Your task to perform on an android device: Open Youtube and go to "Your channel" Image 0: 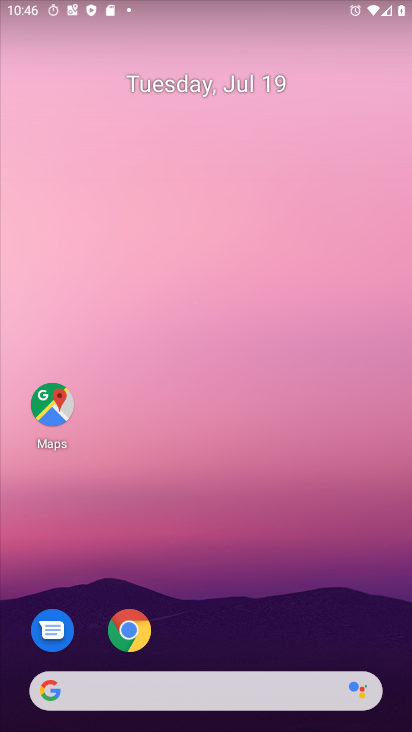
Step 0: press home button
Your task to perform on an android device: Open Youtube and go to "Your channel" Image 1: 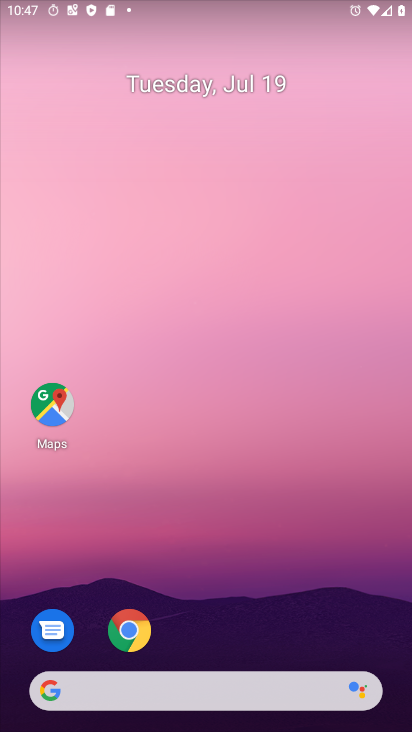
Step 1: drag from (236, 531) to (177, 38)
Your task to perform on an android device: Open Youtube and go to "Your channel" Image 2: 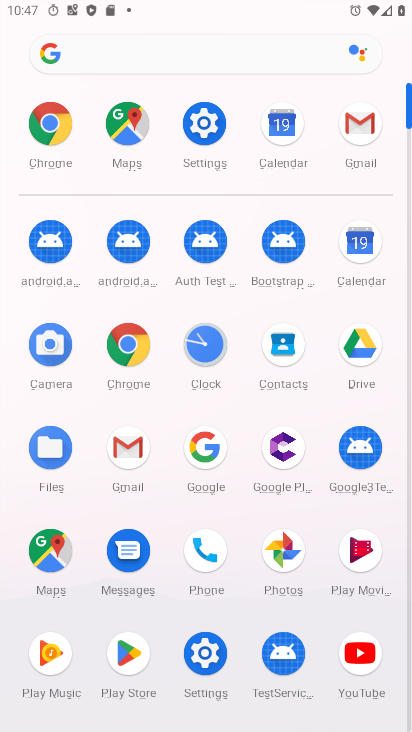
Step 2: click (366, 664)
Your task to perform on an android device: Open Youtube and go to "Your channel" Image 3: 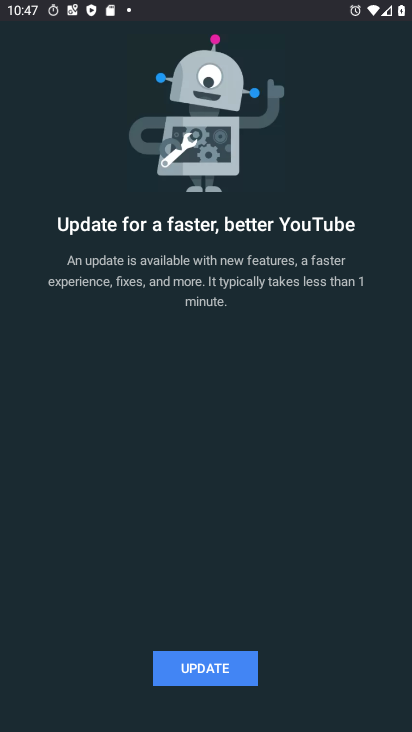
Step 3: click (238, 675)
Your task to perform on an android device: Open Youtube and go to "Your channel" Image 4: 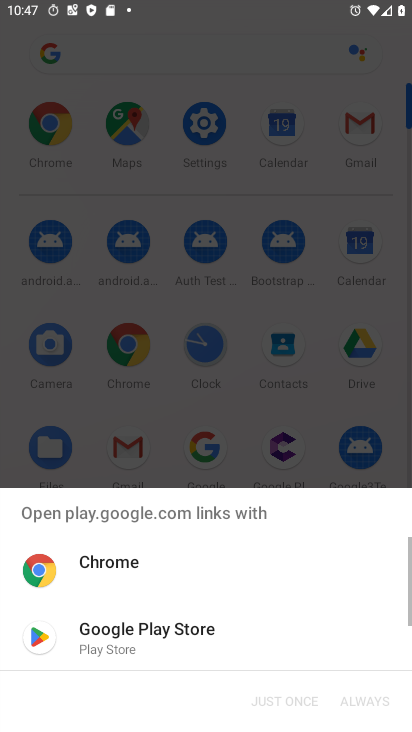
Step 4: click (177, 635)
Your task to perform on an android device: Open Youtube and go to "Your channel" Image 5: 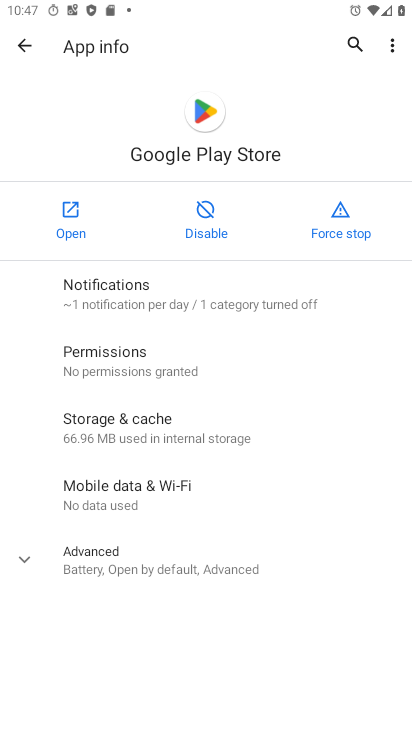
Step 5: press home button
Your task to perform on an android device: Open Youtube and go to "Your channel" Image 6: 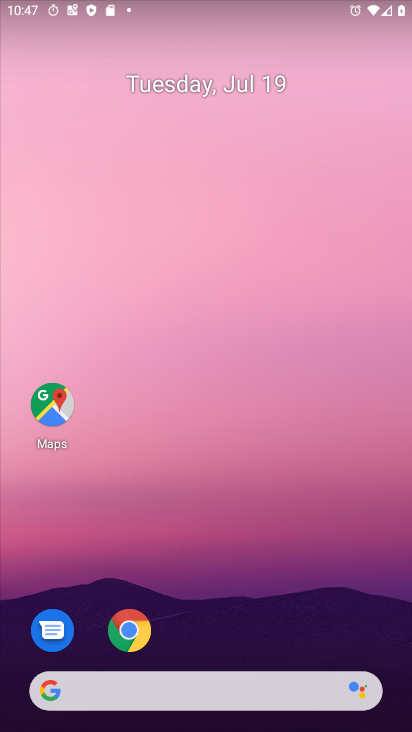
Step 6: drag from (300, 605) to (265, 104)
Your task to perform on an android device: Open Youtube and go to "Your channel" Image 7: 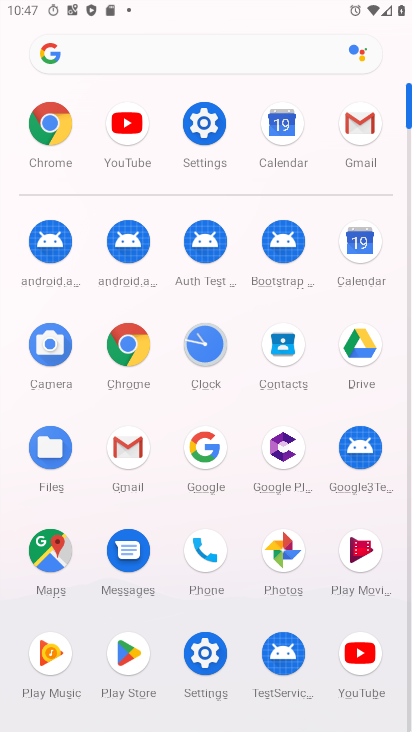
Step 7: click (365, 650)
Your task to perform on an android device: Open Youtube and go to "Your channel" Image 8: 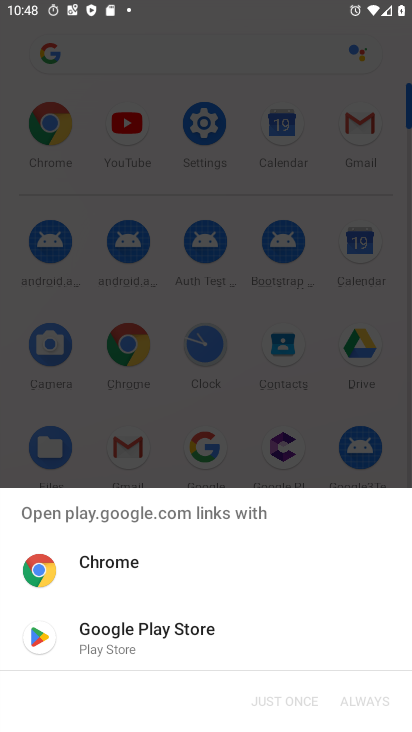
Step 8: click (159, 633)
Your task to perform on an android device: Open Youtube and go to "Your channel" Image 9: 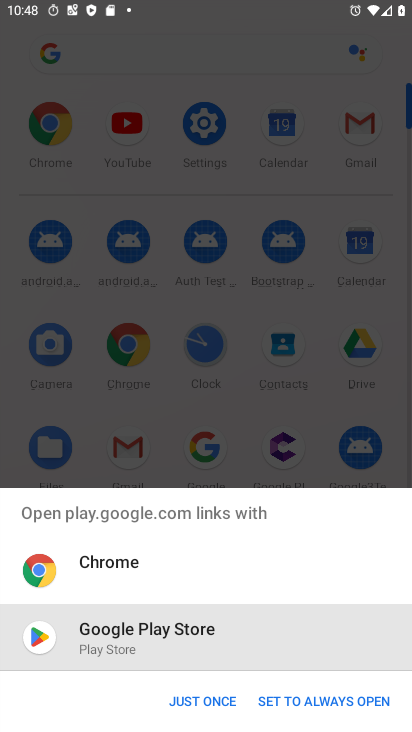
Step 9: click (199, 707)
Your task to perform on an android device: Open Youtube and go to "Your channel" Image 10: 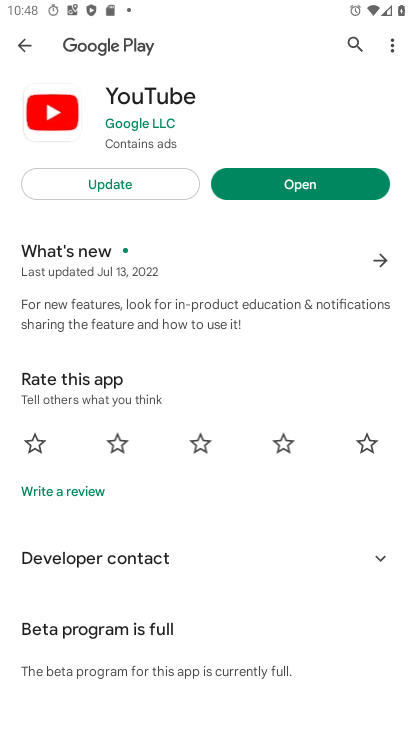
Step 10: click (141, 186)
Your task to perform on an android device: Open Youtube and go to "Your channel" Image 11: 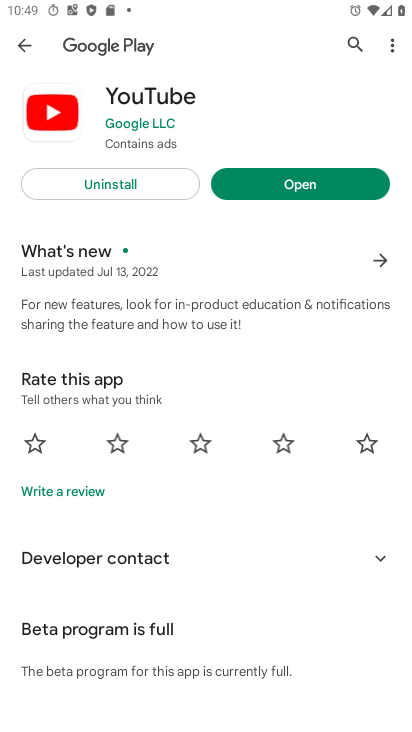
Step 11: click (303, 184)
Your task to perform on an android device: Open Youtube and go to "Your channel" Image 12: 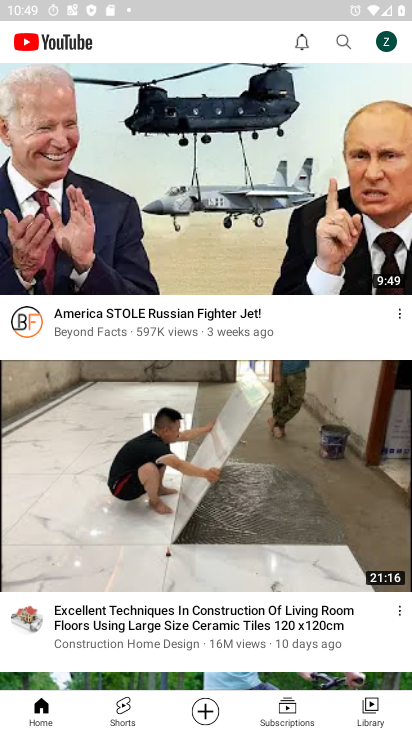
Step 12: click (31, 711)
Your task to perform on an android device: Open Youtube and go to "Your channel" Image 13: 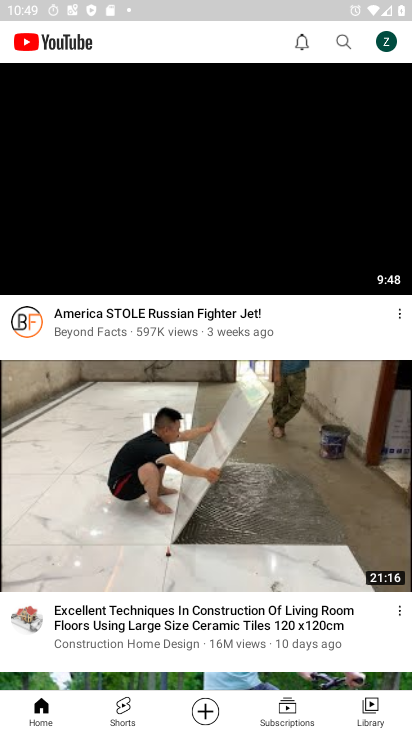
Step 13: click (360, 706)
Your task to perform on an android device: Open Youtube and go to "Your channel" Image 14: 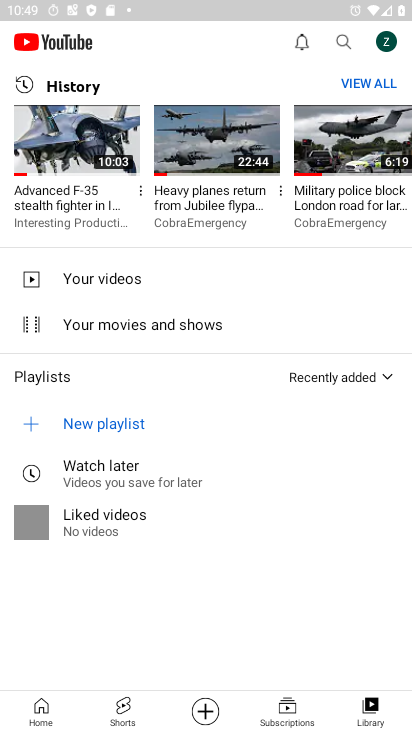
Step 14: click (386, 41)
Your task to perform on an android device: Open Youtube and go to "Your channel" Image 15: 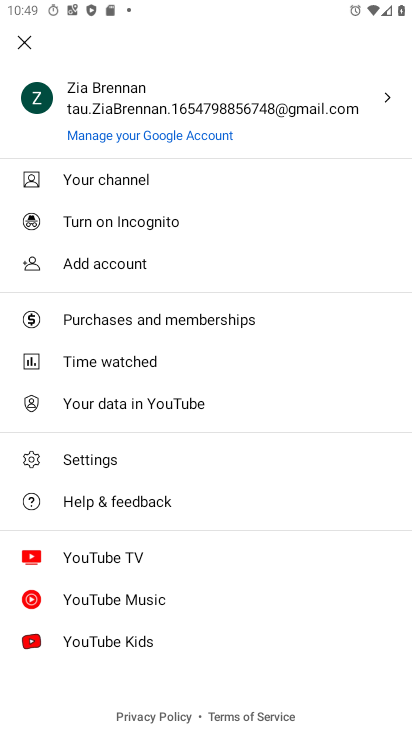
Step 15: click (105, 183)
Your task to perform on an android device: Open Youtube and go to "Your channel" Image 16: 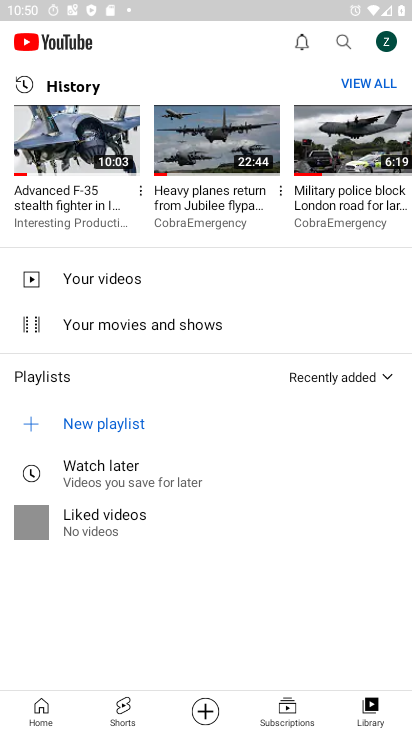
Step 16: click (389, 42)
Your task to perform on an android device: Open Youtube and go to "Your channel" Image 17: 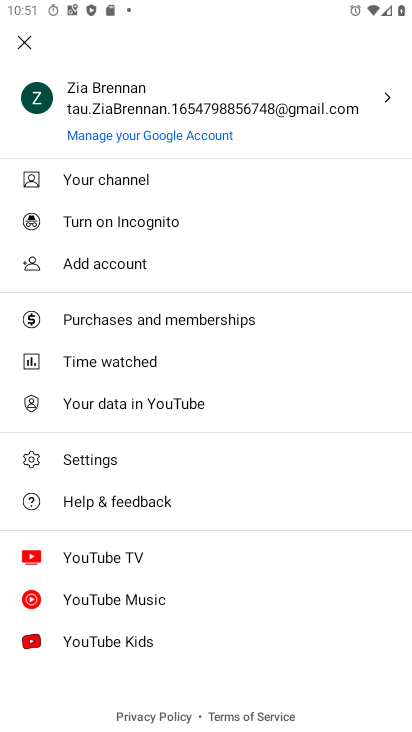
Step 17: click (129, 176)
Your task to perform on an android device: Open Youtube and go to "Your channel" Image 18: 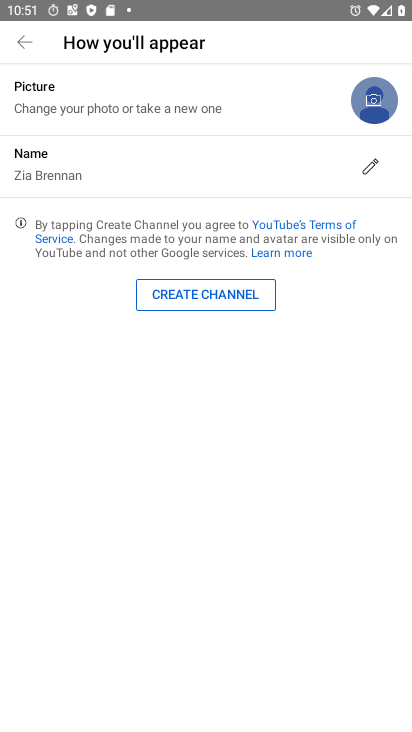
Step 18: task complete